Your task to perform on an android device: turn on translation in the chrome app Image 0: 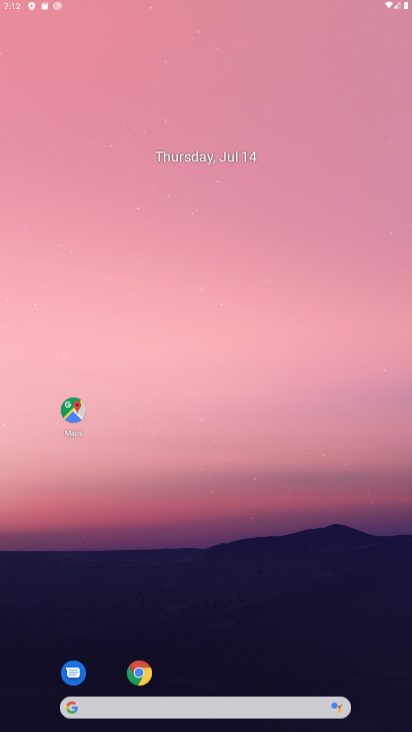
Step 0: drag from (183, 292) to (132, 23)
Your task to perform on an android device: turn on translation in the chrome app Image 1: 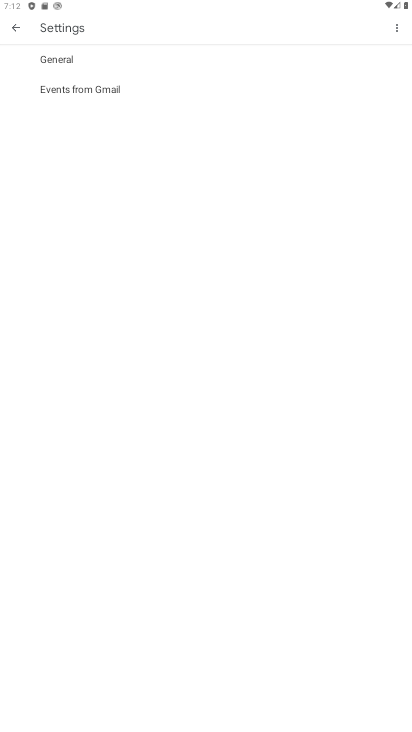
Step 1: press home button
Your task to perform on an android device: turn on translation in the chrome app Image 2: 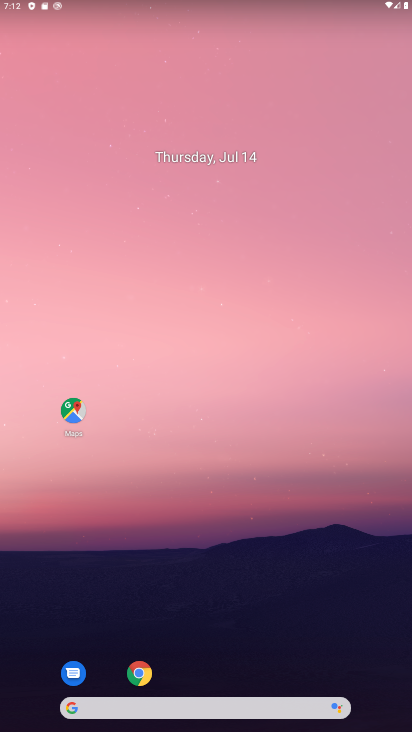
Step 2: click (138, 673)
Your task to perform on an android device: turn on translation in the chrome app Image 3: 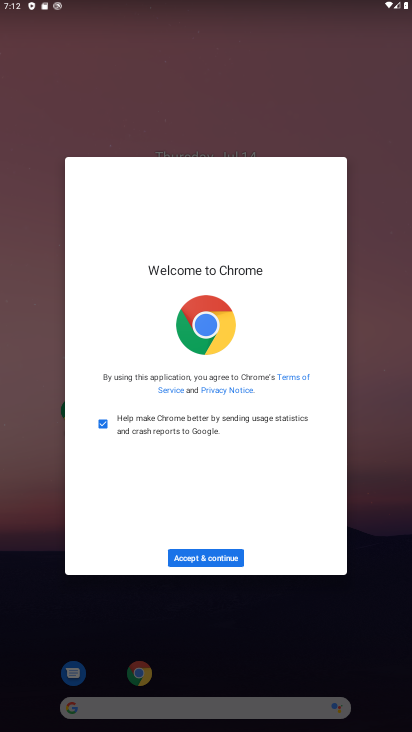
Step 3: click (206, 556)
Your task to perform on an android device: turn on translation in the chrome app Image 4: 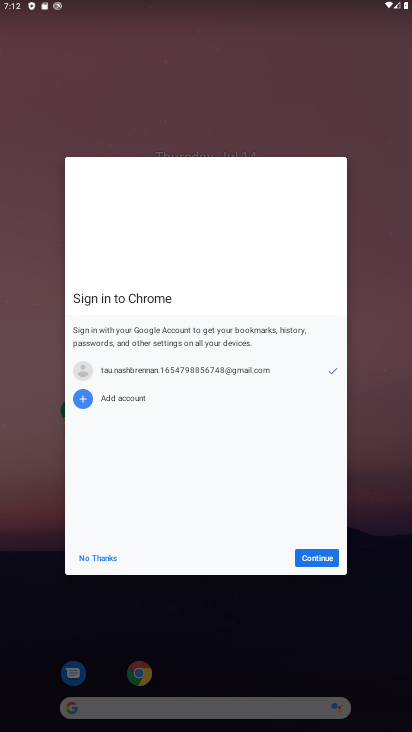
Step 4: click (309, 557)
Your task to perform on an android device: turn on translation in the chrome app Image 5: 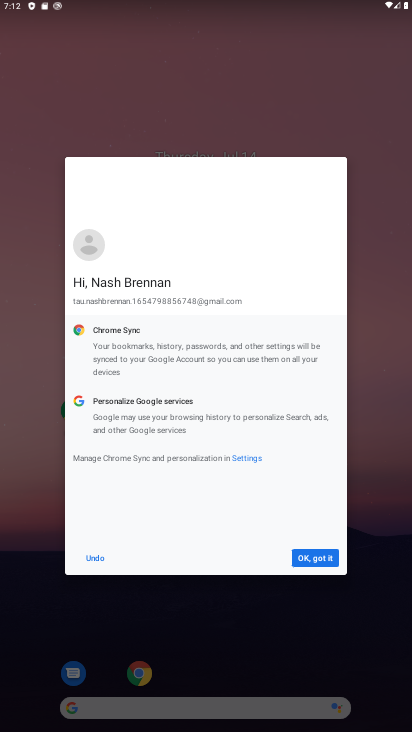
Step 5: click (309, 557)
Your task to perform on an android device: turn on translation in the chrome app Image 6: 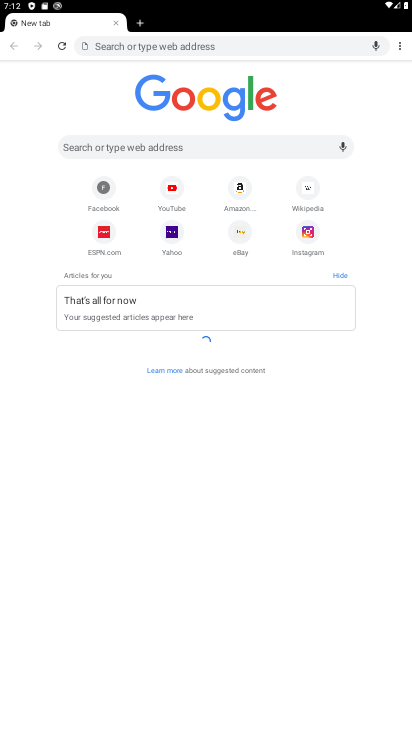
Step 6: click (401, 45)
Your task to perform on an android device: turn on translation in the chrome app Image 7: 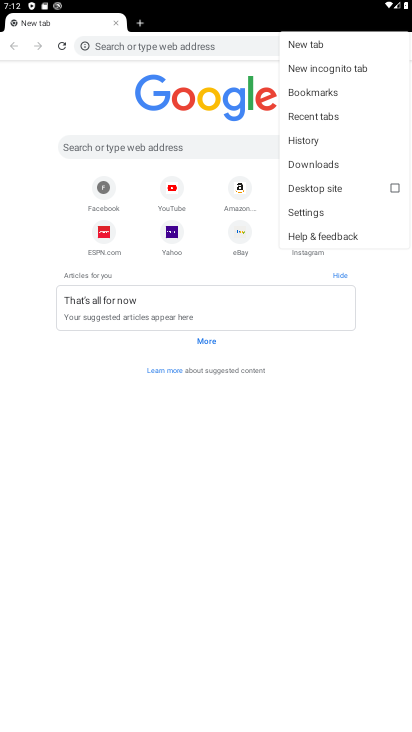
Step 7: click (306, 210)
Your task to perform on an android device: turn on translation in the chrome app Image 8: 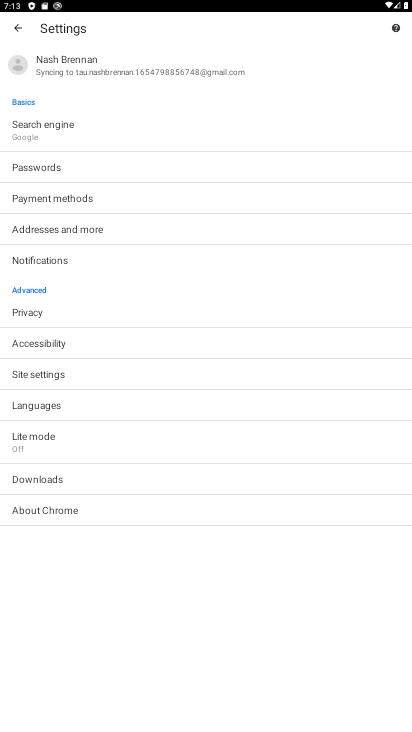
Step 8: click (47, 404)
Your task to perform on an android device: turn on translation in the chrome app Image 9: 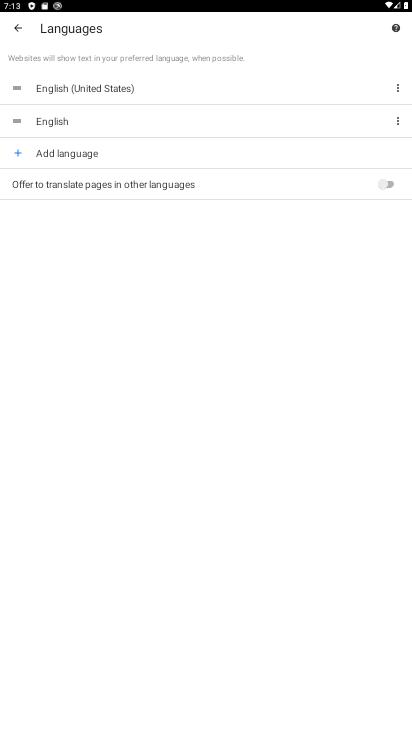
Step 9: click (383, 181)
Your task to perform on an android device: turn on translation in the chrome app Image 10: 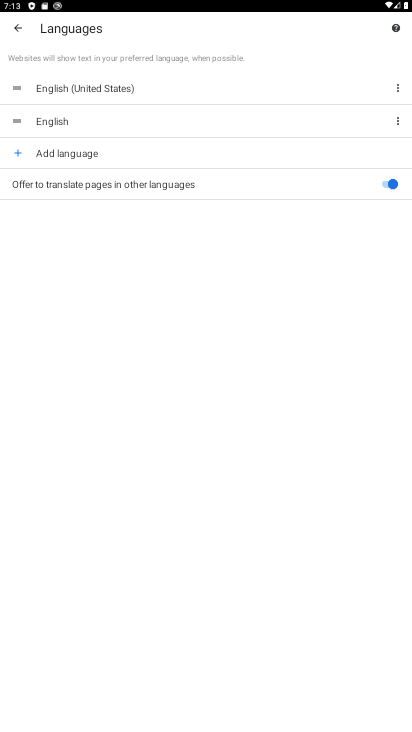
Step 10: task complete